Your task to perform on an android device: make emails show in primary in the gmail app Image 0: 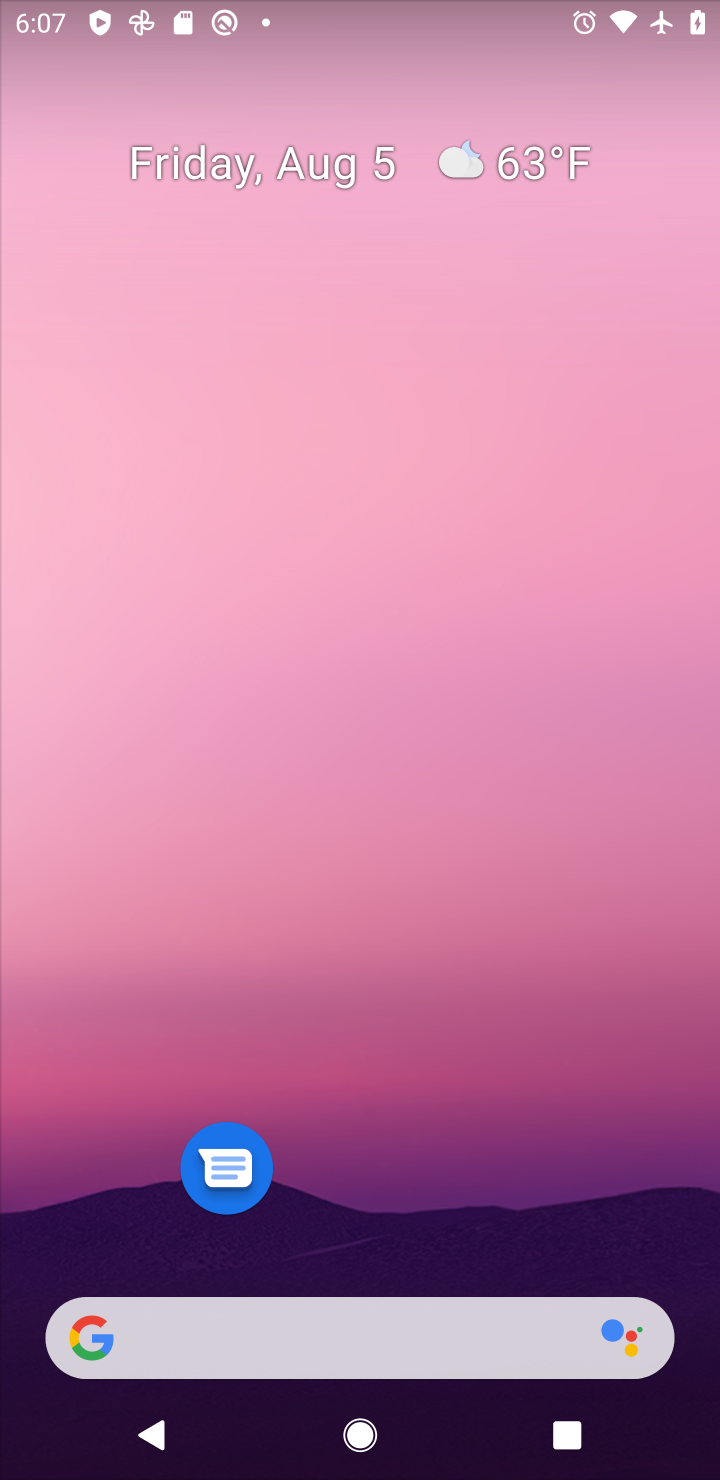
Step 0: drag from (347, 1266) to (387, 440)
Your task to perform on an android device: make emails show in primary in the gmail app Image 1: 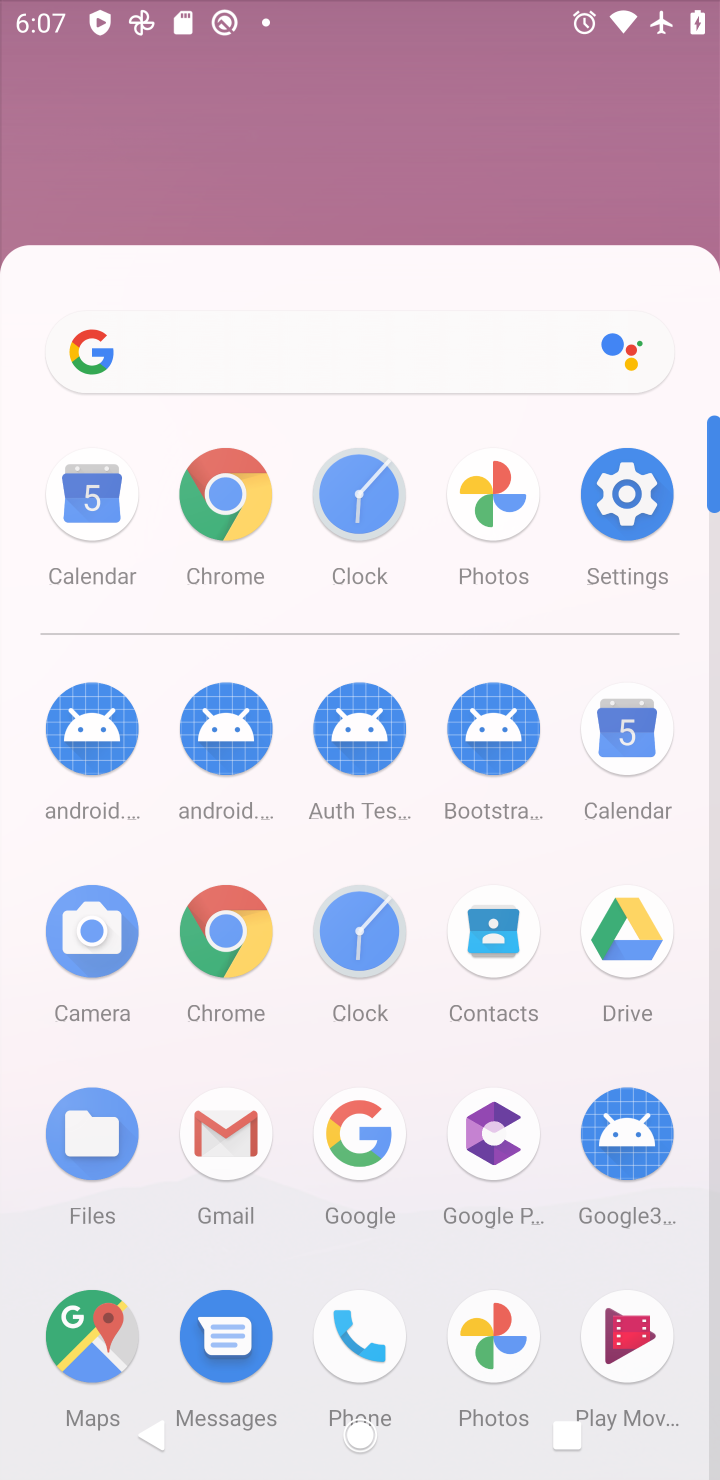
Step 1: drag from (399, 1244) to (457, 110)
Your task to perform on an android device: make emails show in primary in the gmail app Image 2: 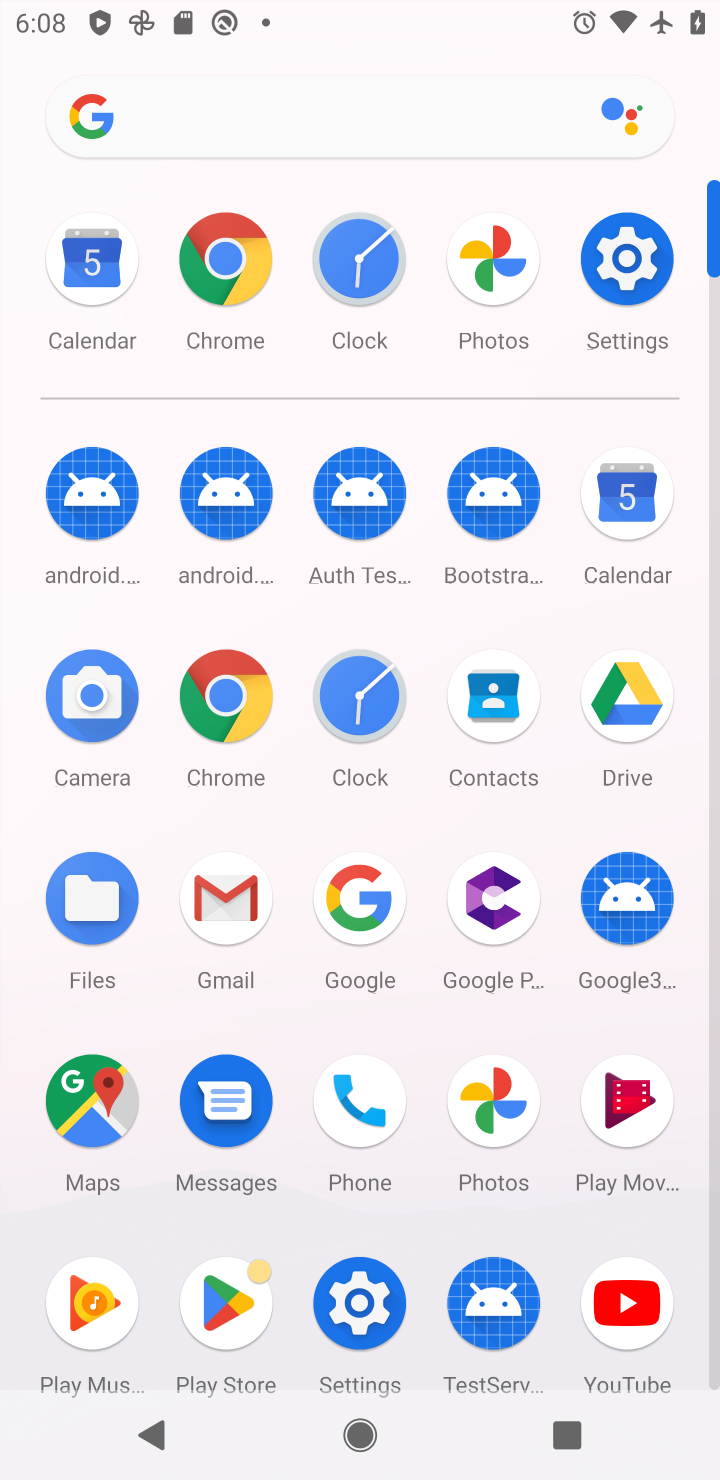
Step 2: click (226, 889)
Your task to perform on an android device: make emails show in primary in the gmail app Image 3: 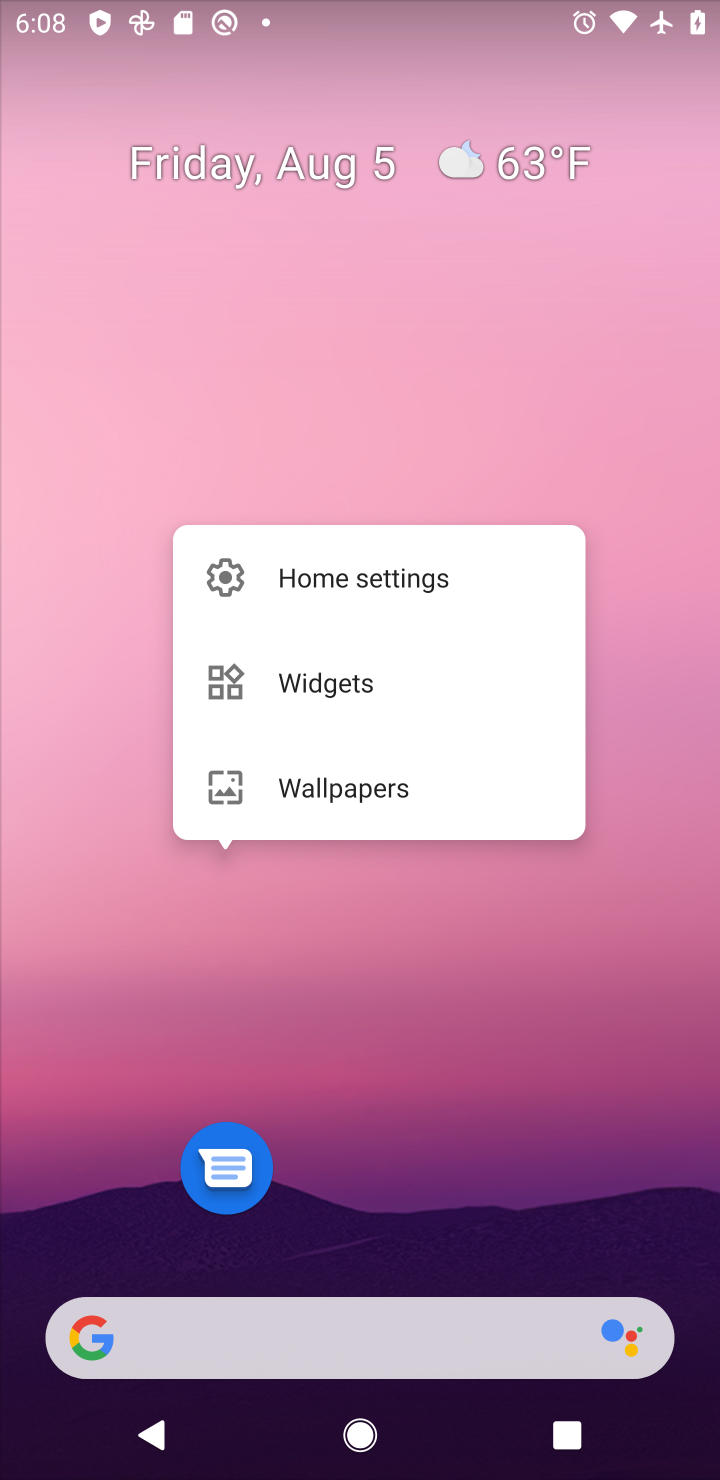
Step 3: click (602, 1254)
Your task to perform on an android device: make emails show in primary in the gmail app Image 4: 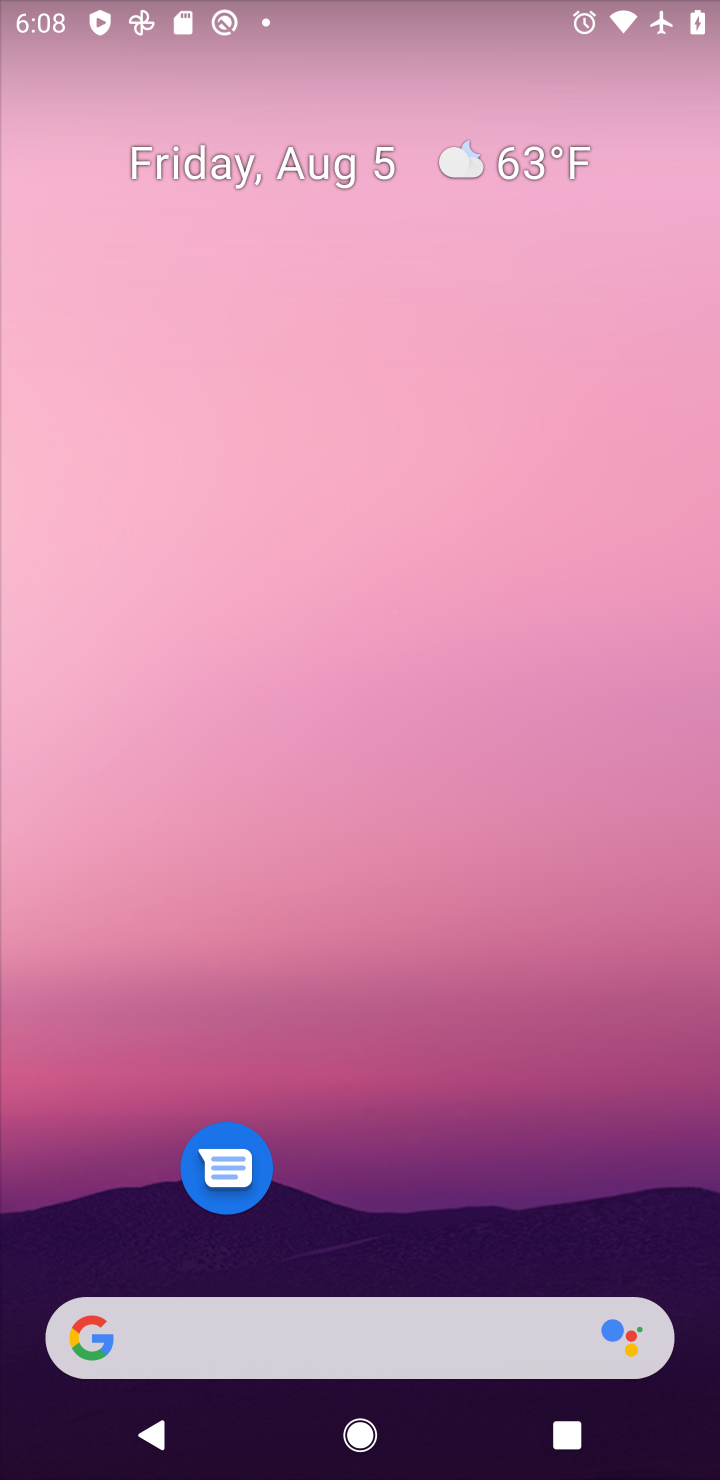
Step 4: drag from (542, 1246) to (294, 4)
Your task to perform on an android device: make emails show in primary in the gmail app Image 5: 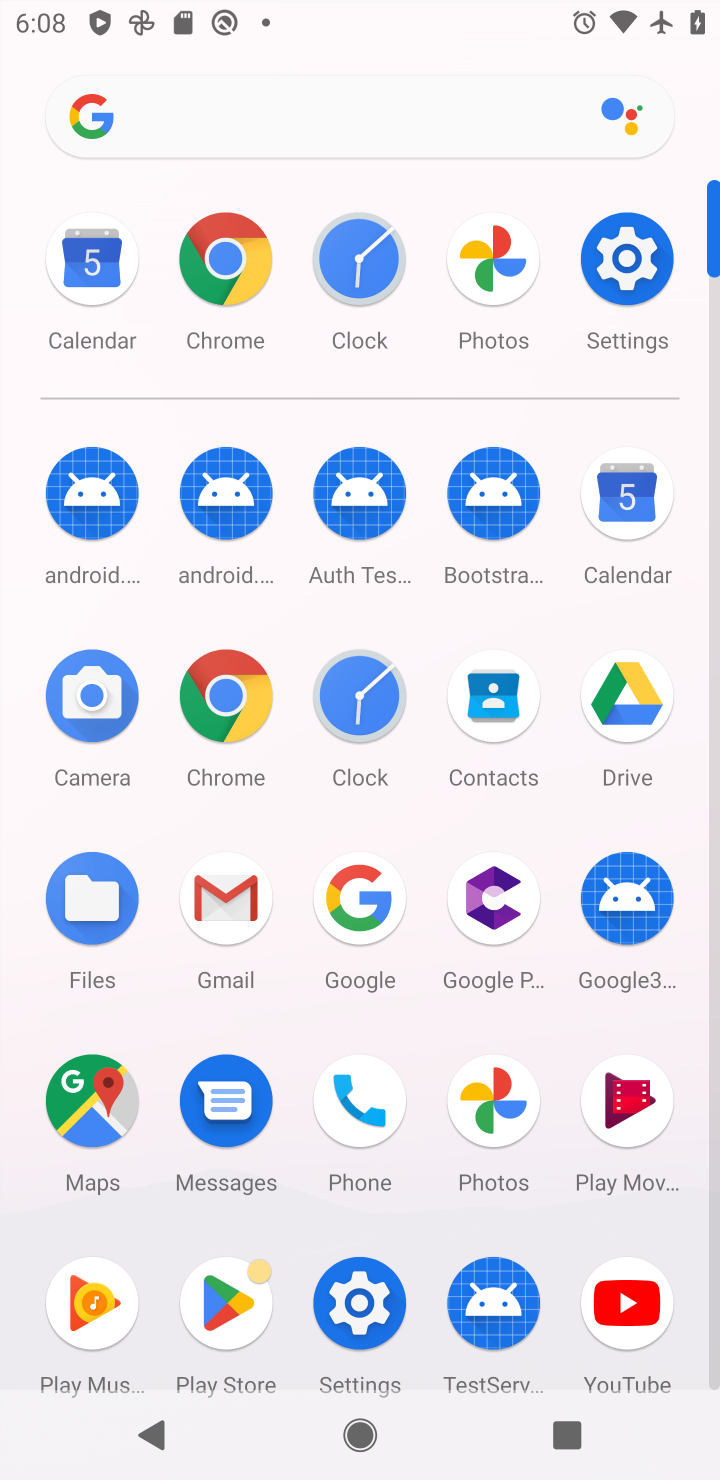
Step 5: click (243, 907)
Your task to perform on an android device: make emails show in primary in the gmail app Image 6: 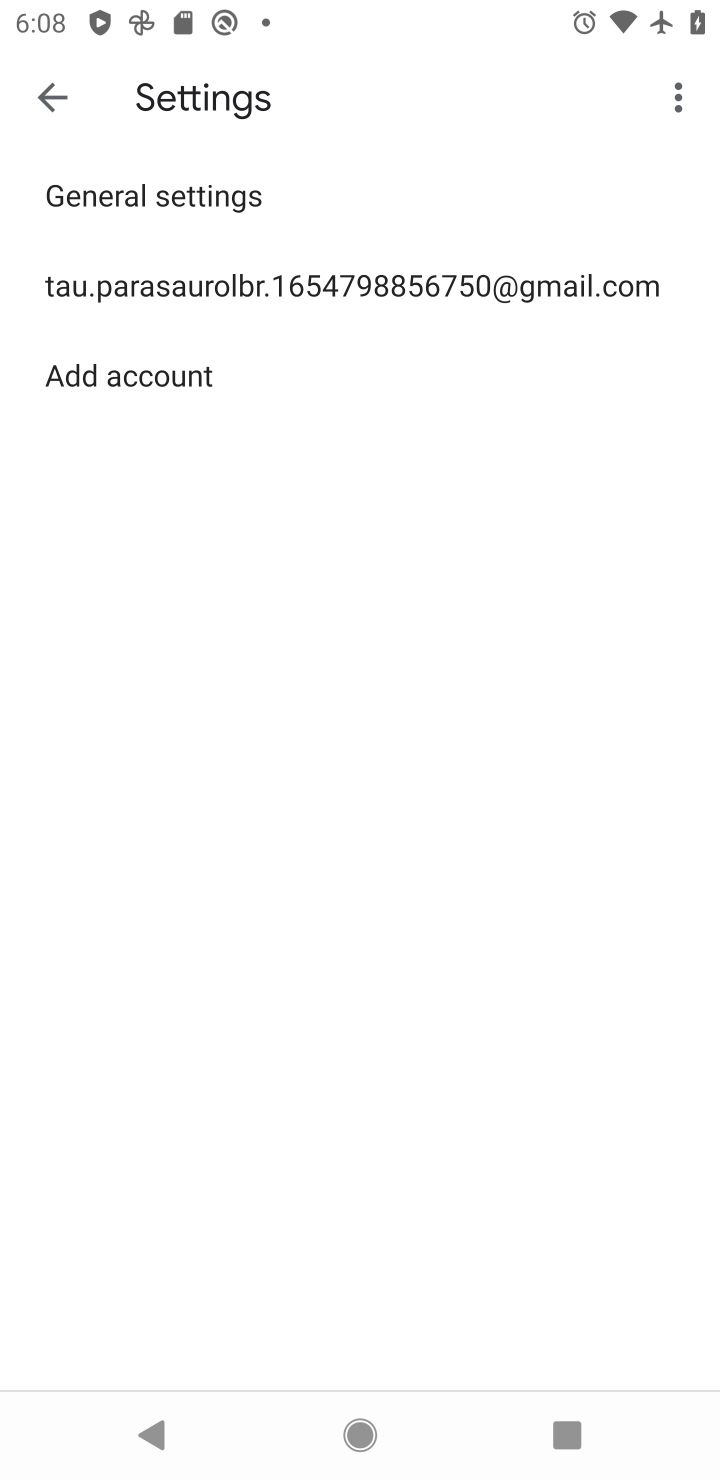
Step 6: click (234, 281)
Your task to perform on an android device: make emails show in primary in the gmail app Image 7: 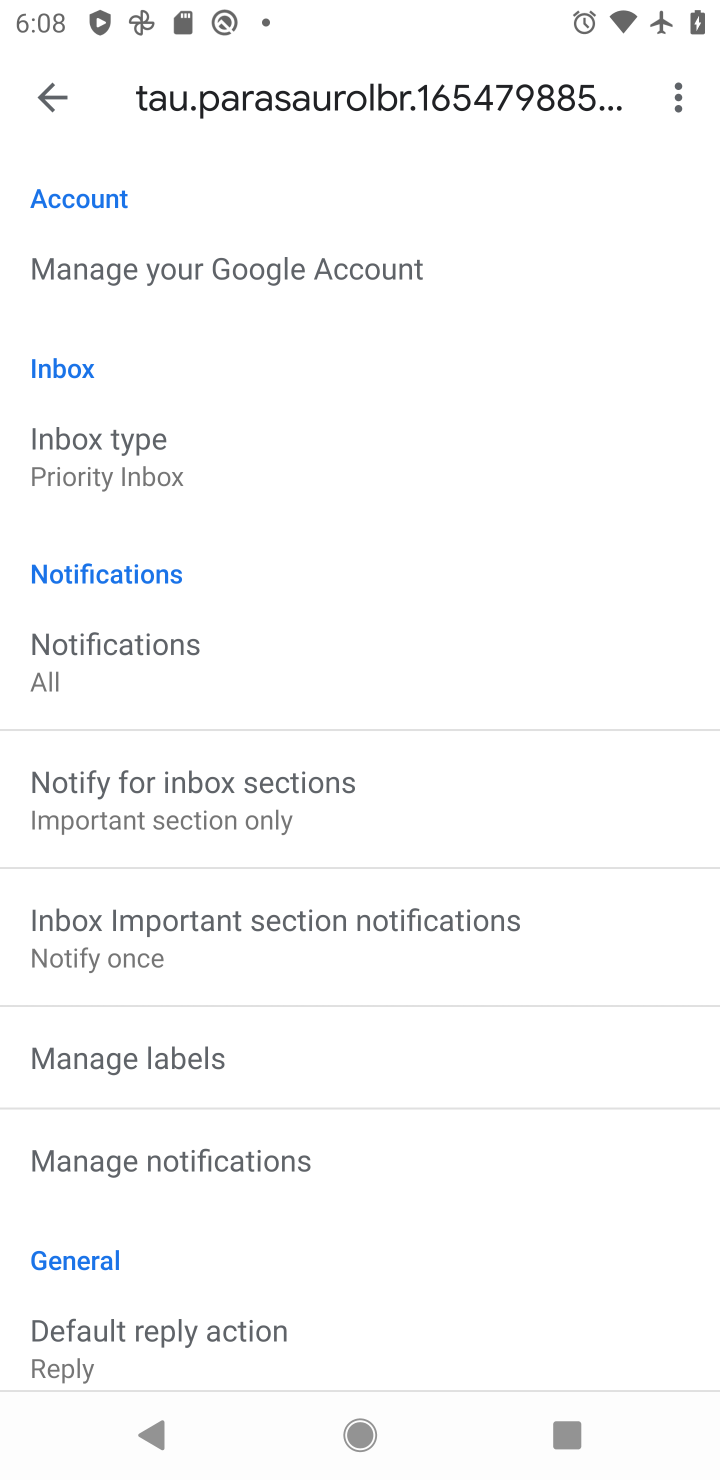
Step 7: task complete